Your task to perform on an android device: Open calendar and show me the first week of next month Image 0: 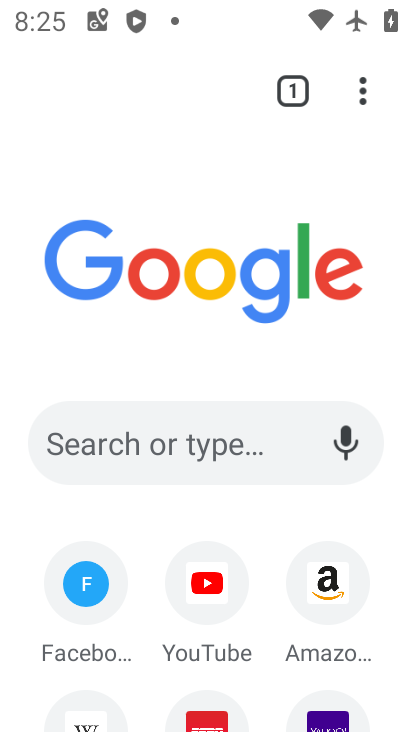
Step 0: press home button
Your task to perform on an android device: Open calendar and show me the first week of next month Image 1: 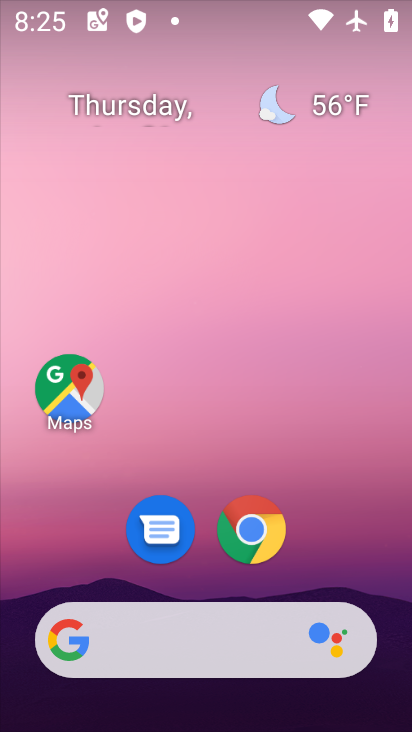
Step 1: drag from (149, 641) to (298, 32)
Your task to perform on an android device: Open calendar and show me the first week of next month Image 2: 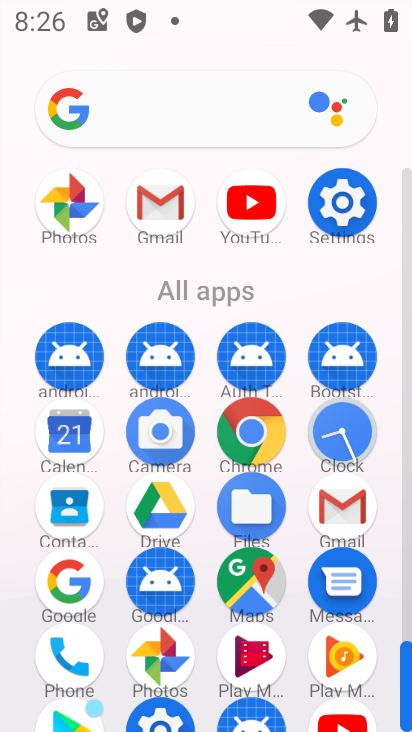
Step 2: click (74, 437)
Your task to perform on an android device: Open calendar and show me the first week of next month Image 3: 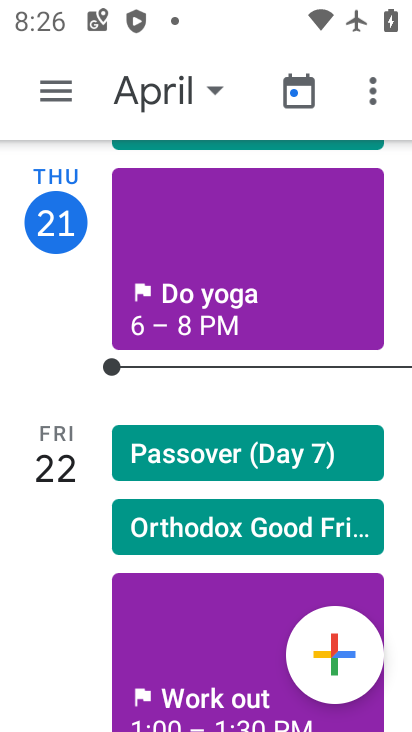
Step 3: click (151, 87)
Your task to perform on an android device: Open calendar and show me the first week of next month Image 4: 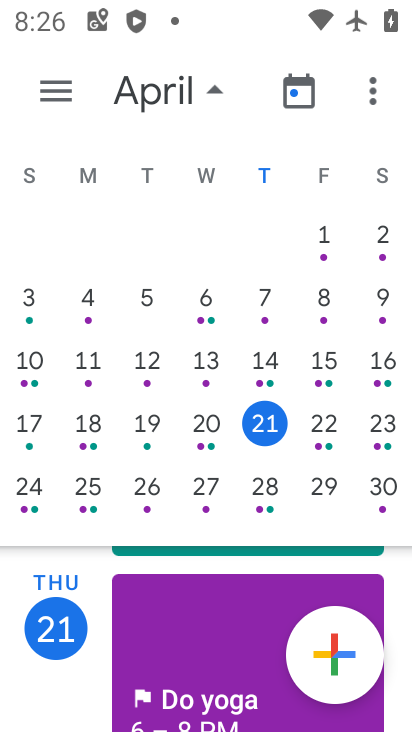
Step 4: drag from (358, 406) to (35, 351)
Your task to perform on an android device: Open calendar and show me the first week of next month Image 5: 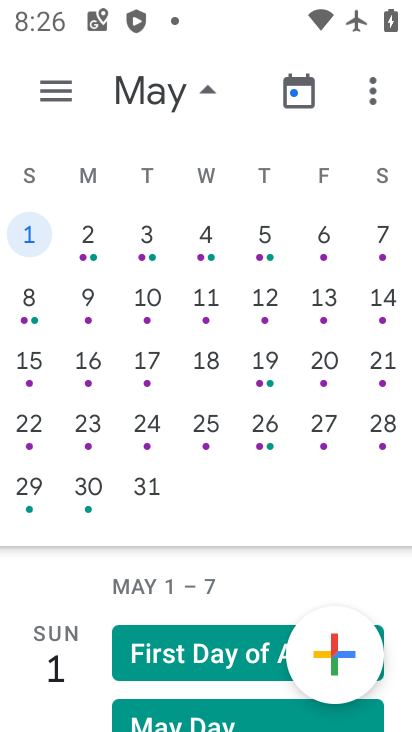
Step 5: click (30, 238)
Your task to perform on an android device: Open calendar and show me the first week of next month Image 6: 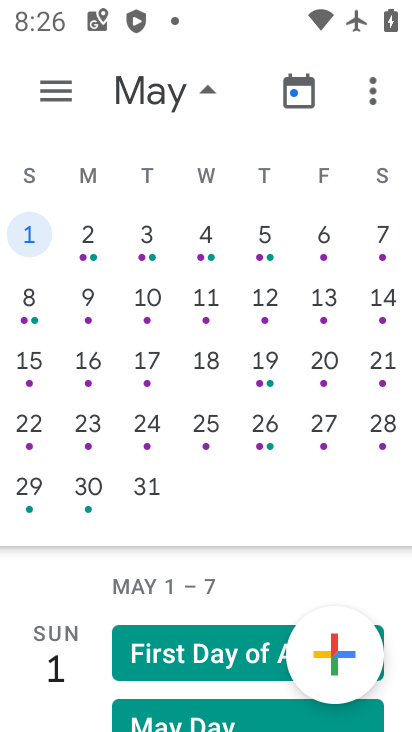
Step 6: click (59, 83)
Your task to perform on an android device: Open calendar and show me the first week of next month Image 7: 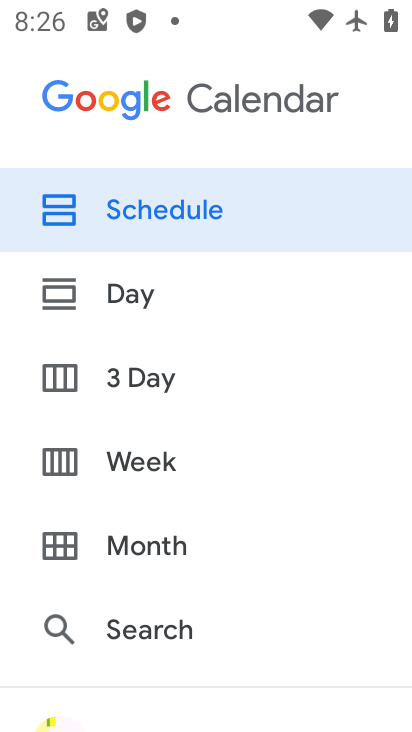
Step 7: click (151, 463)
Your task to perform on an android device: Open calendar and show me the first week of next month Image 8: 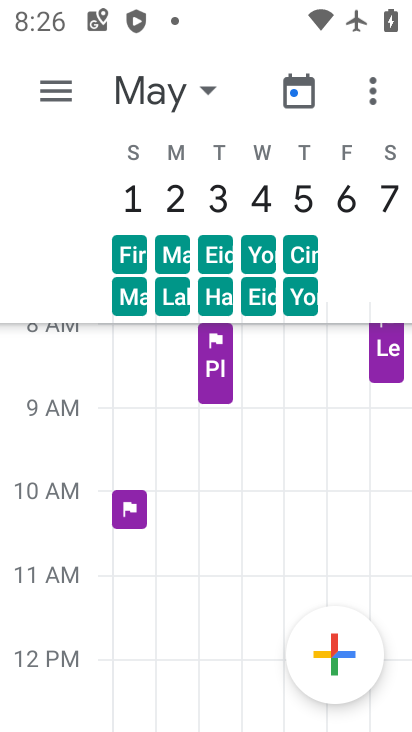
Step 8: task complete